Your task to perform on an android device: change the clock display to digital Image 0: 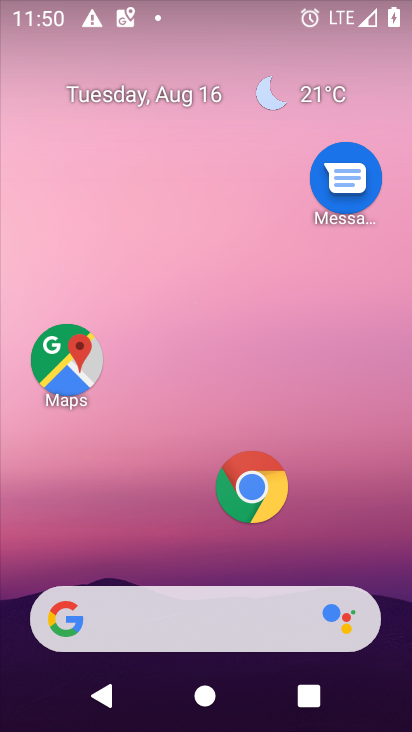
Step 0: drag from (192, 343) to (269, 24)
Your task to perform on an android device: change the clock display to digital Image 1: 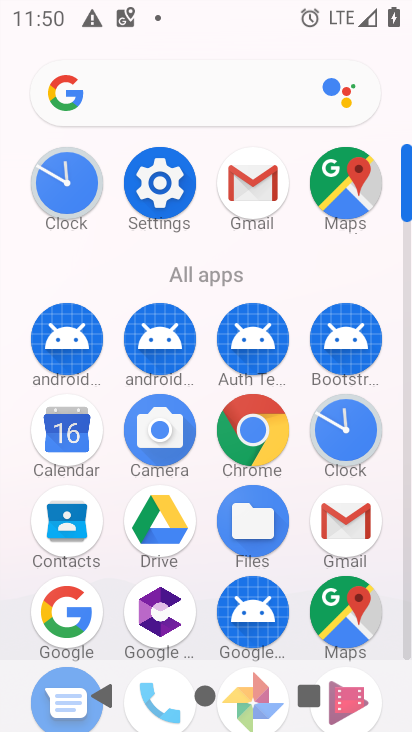
Step 1: click (351, 441)
Your task to perform on an android device: change the clock display to digital Image 2: 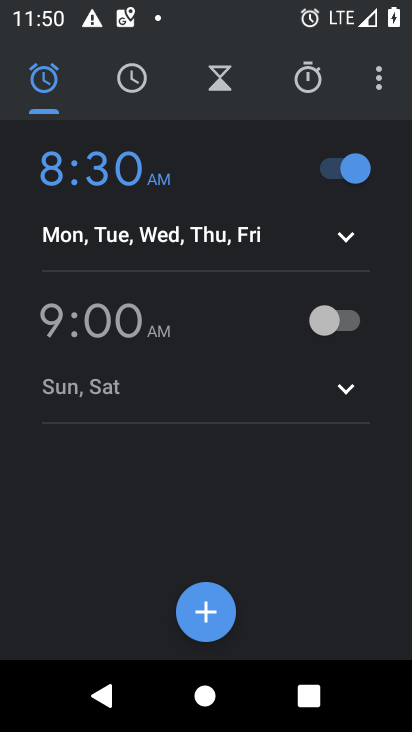
Step 2: click (380, 76)
Your task to perform on an android device: change the clock display to digital Image 3: 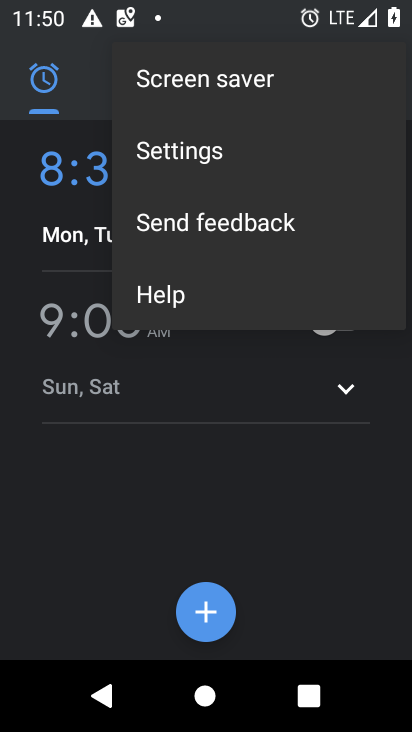
Step 3: click (230, 151)
Your task to perform on an android device: change the clock display to digital Image 4: 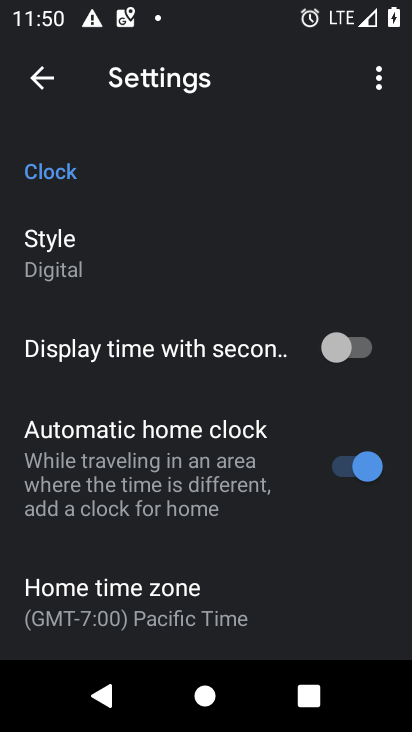
Step 4: task complete